Your task to perform on an android device: turn notification dots off Image 0: 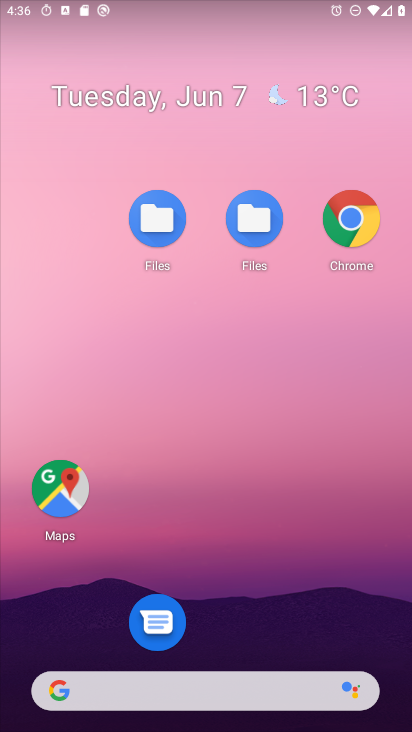
Step 0: drag from (262, 641) to (272, 90)
Your task to perform on an android device: turn notification dots off Image 1: 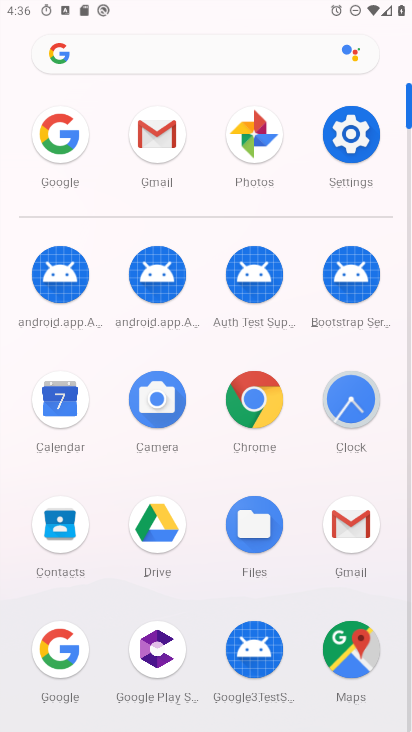
Step 1: click (350, 132)
Your task to perform on an android device: turn notification dots off Image 2: 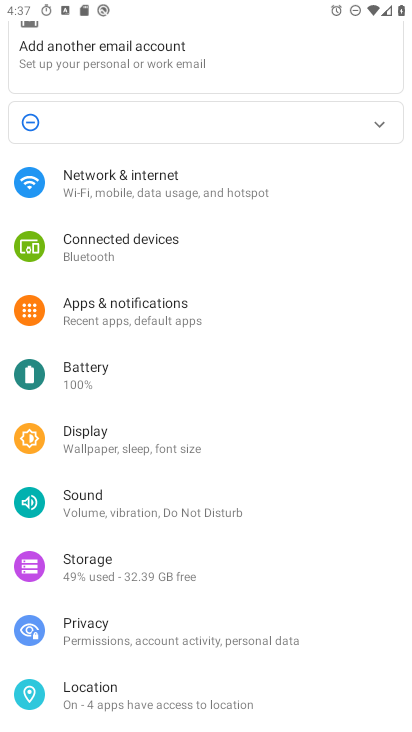
Step 2: click (162, 317)
Your task to perform on an android device: turn notification dots off Image 3: 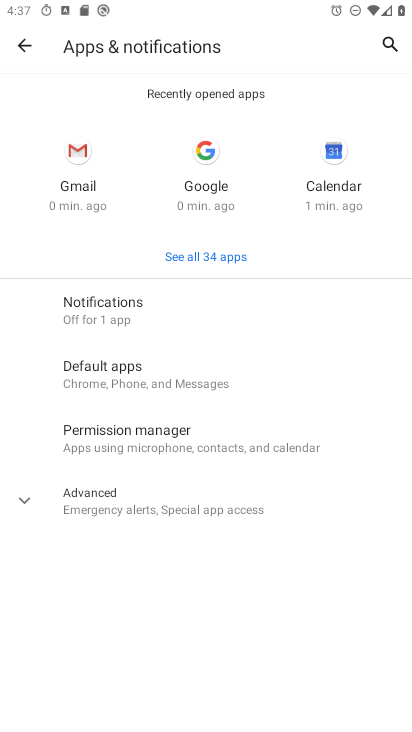
Step 3: click (124, 305)
Your task to perform on an android device: turn notification dots off Image 4: 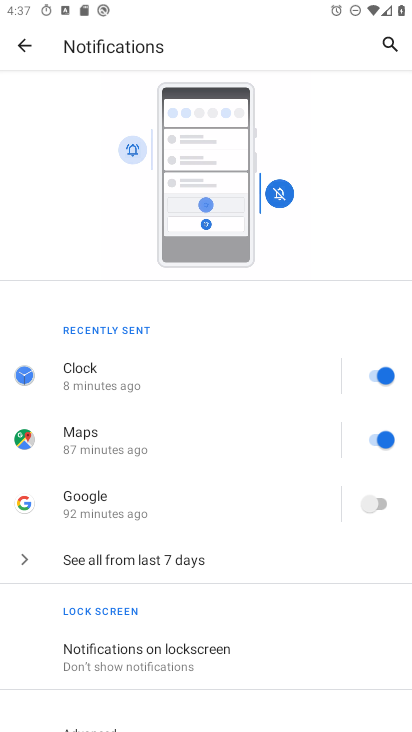
Step 4: drag from (168, 665) to (168, 596)
Your task to perform on an android device: turn notification dots off Image 5: 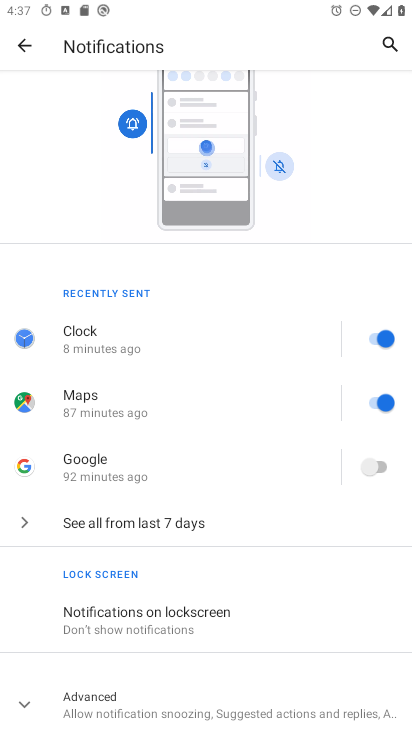
Step 5: click (180, 692)
Your task to perform on an android device: turn notification dots off Image 6: 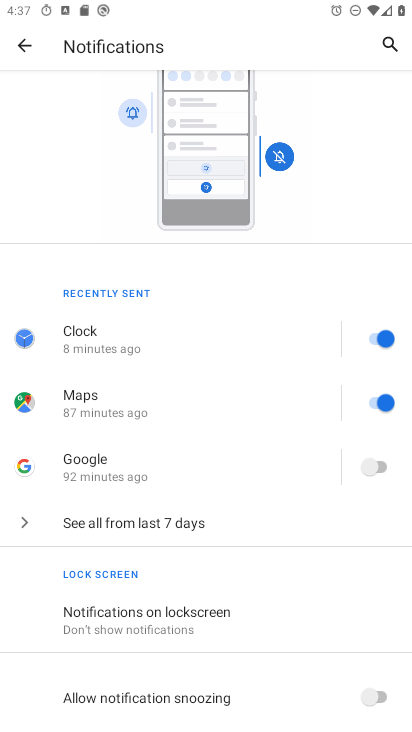
Step 6: drag from (184, 695) to (187, 491)
Your task to perform on an android device: turn notification dots off Image 7: 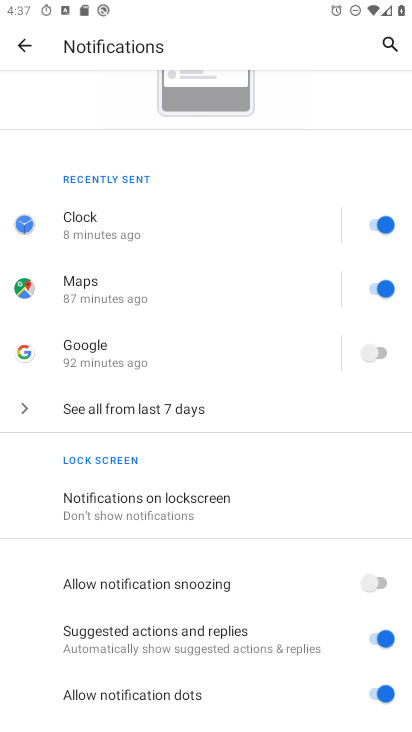
Step 7: click (375, 687)
Your task to perform on an android device: turn notification dots off Image 8: 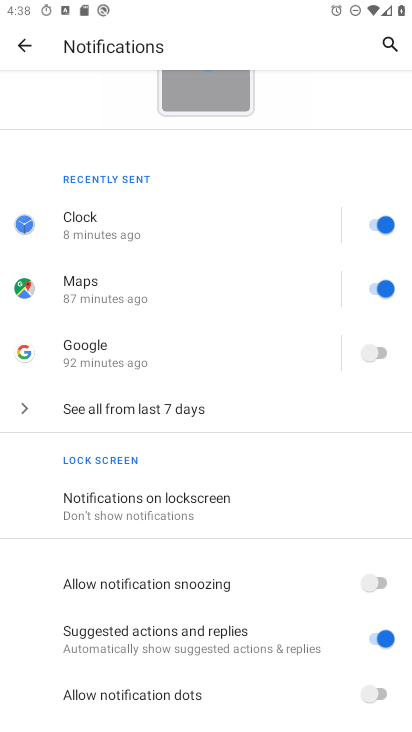
Step 8: task complete